Your task to perform on an android device: add a contact Image 0: 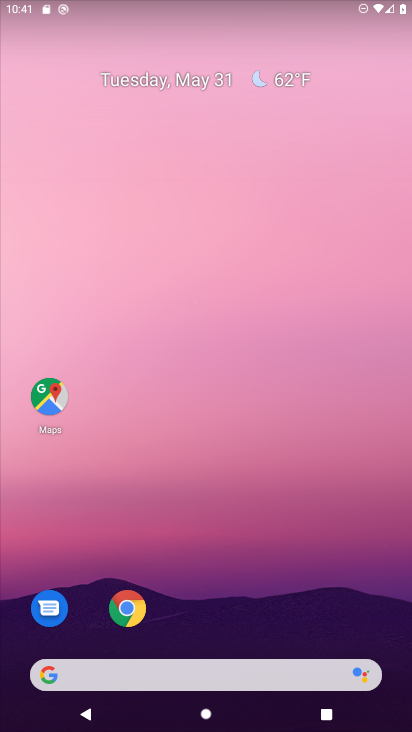
Step 0: drag from (291, 543) to (274, 161)
Your task to perform on an android device: add a contact Image 1: 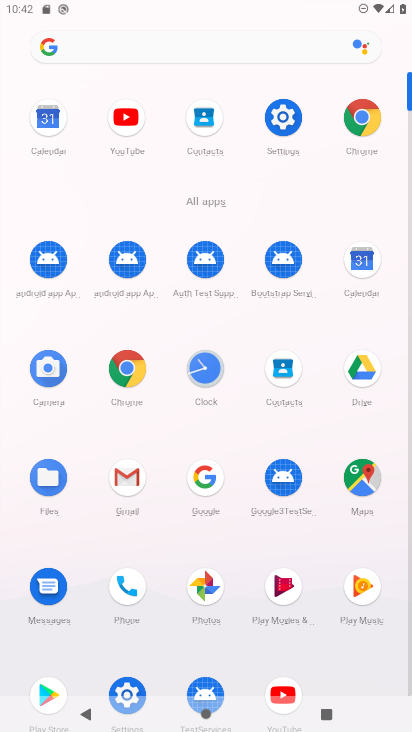
Step 1: click (209, 132)
Your task to perform on an android device: add a contact Image 2: 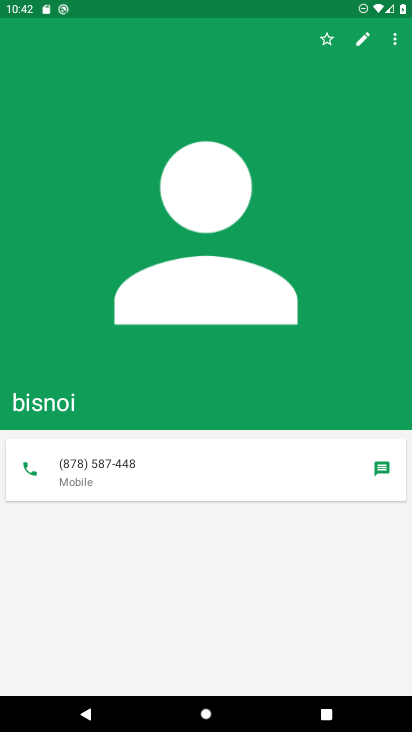
Step 2: press back button
Your task to perform on an android device: add a contact Image 3: 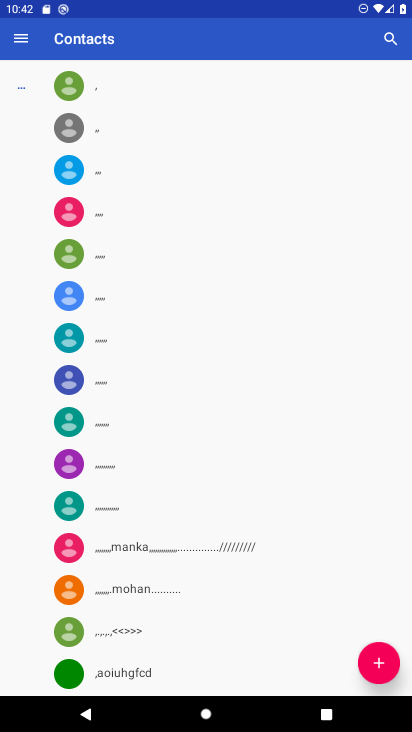
Step 3: click (377, 674)
Your task to perform on an android device: add a contact Image 4: 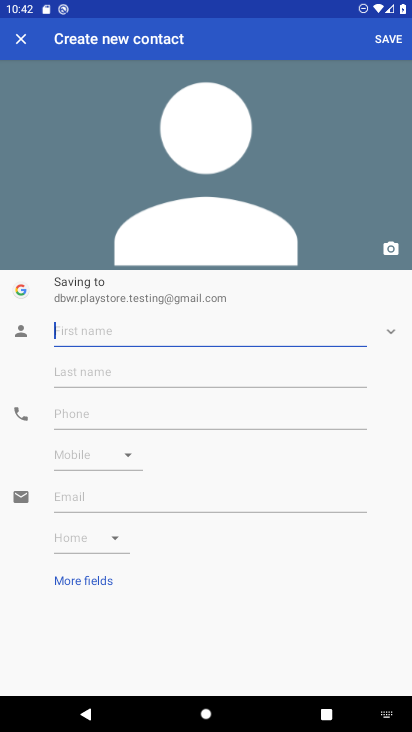
Step 4: type "The Moose wala"
Your task to perform on an android device: add a contact Image 5: 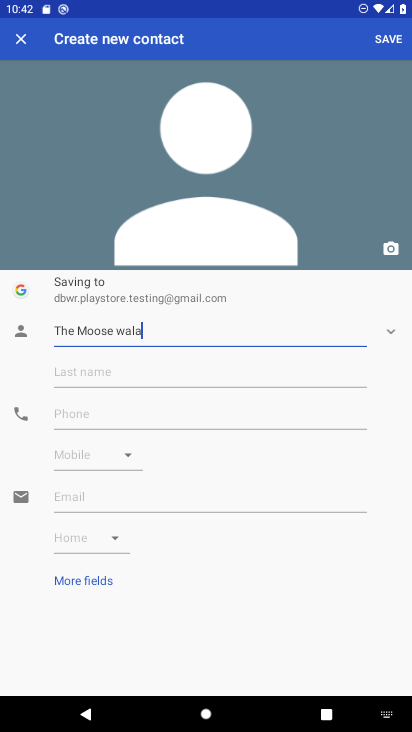
Step 5: click (212, 410)
Your task to perform on an android device: add a contact Image 6: 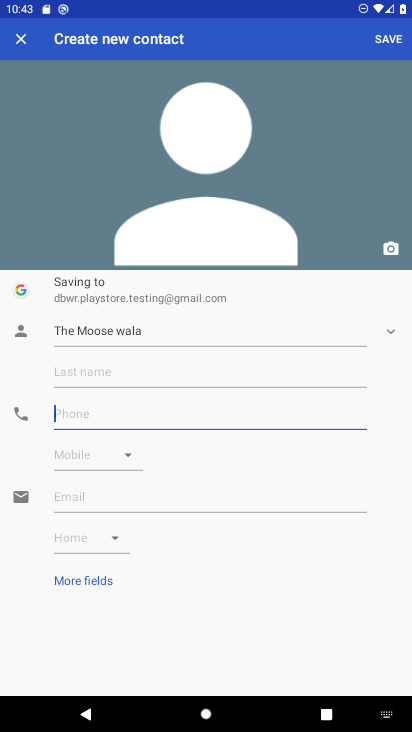
Step 6: type "0949493039"
Your task to perform on an android device: add a contact Image 7: 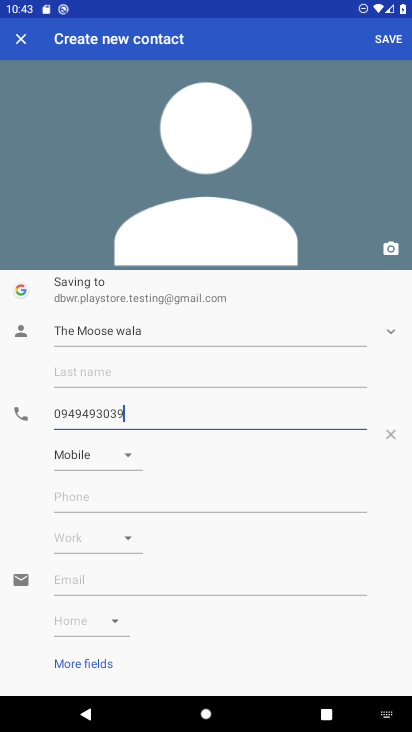
Step 7: click (389, 39)
Your task to perform on an android device: add a contact Image 8: 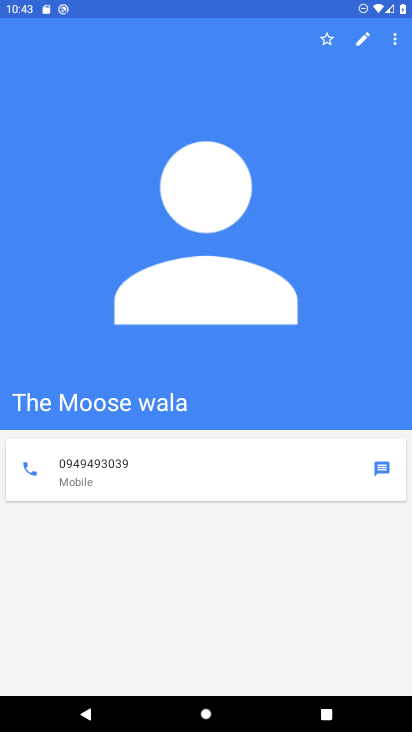
Step 8: task complete